Your task to perform on an android device: turn off data saver in the chrome app Image 0: 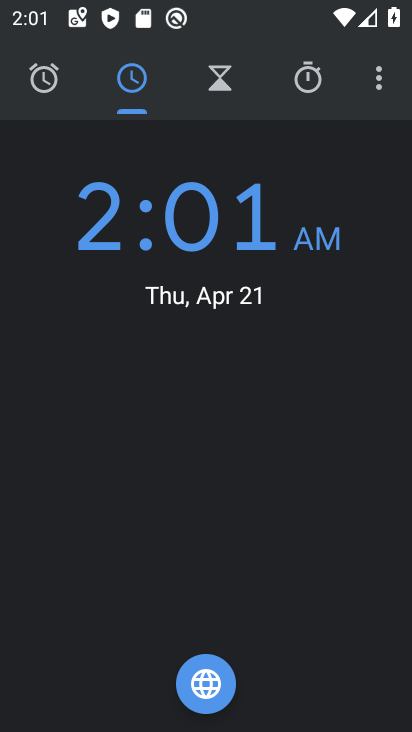
Step 0: press home button
Your task to perform on an android device: turn off data saver in the chrome app Image 1: 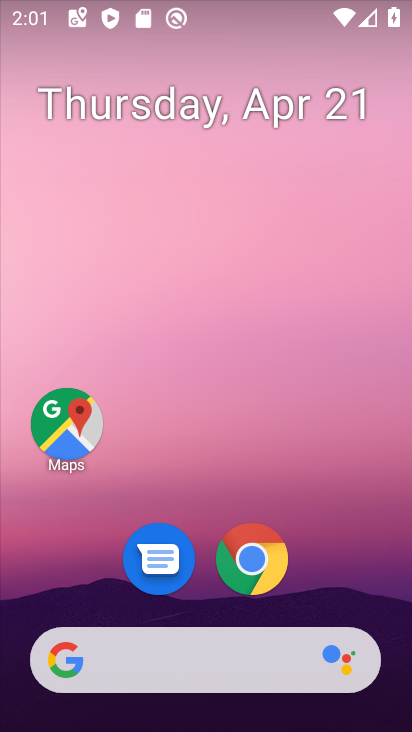
Step 1: drag from (206, 600) to (181, 211)
Your task to perform on an android device: turn off data saver in the chrome app Image 2: 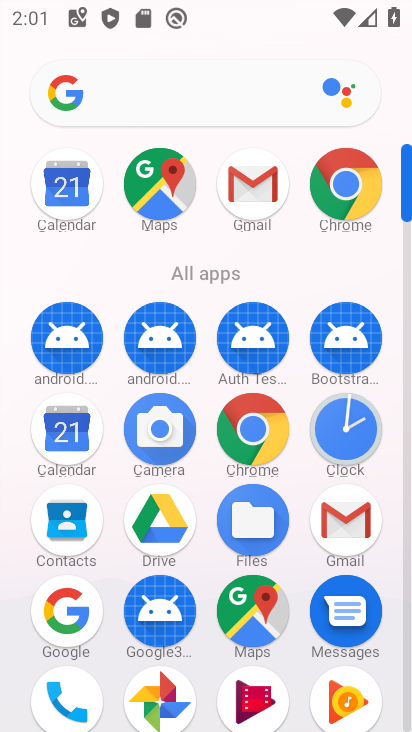
Step 2: click (352, 179)
Your task to perform on an android device: turn off data saver in the chrome app Image 3: 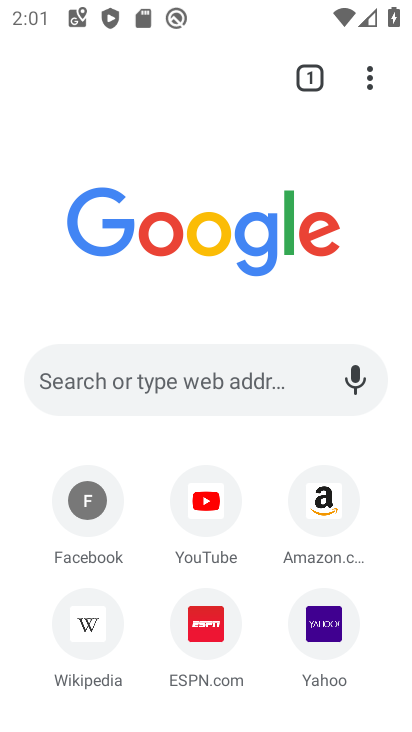
Step 3: click (366, 83)
Your task to perform on an android device: turn off data saver in the chrome app Image 4: 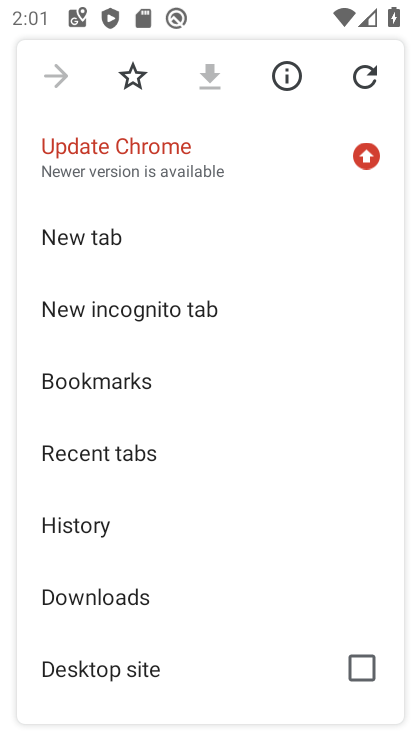
Step 4: drag from (210, 603) to (186, 240)
Your task to perform on an android device: turn off data saver in the chrome app Image 5: 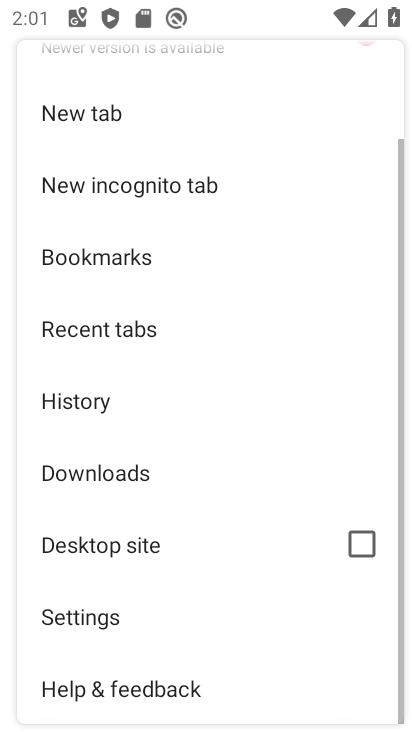
Step 5: click (140, 622)
Your task to perform on an android device: turn off data saver in the chrome app Image 6: 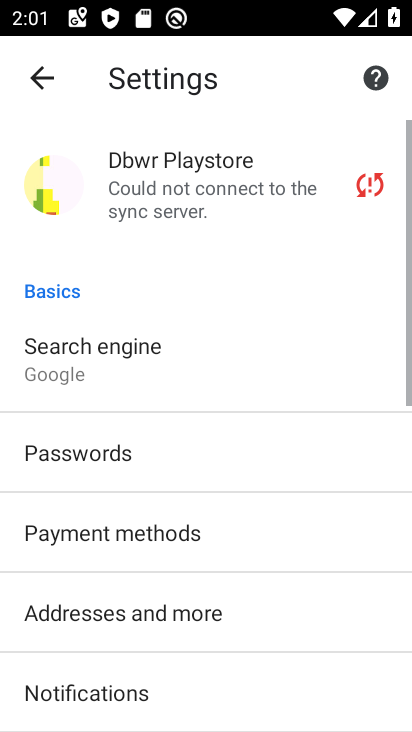
Step 6: drag from (159, 595) to (158, 288)
Your task to perform on an android device: turn off data saver in the chrome app Image 7: 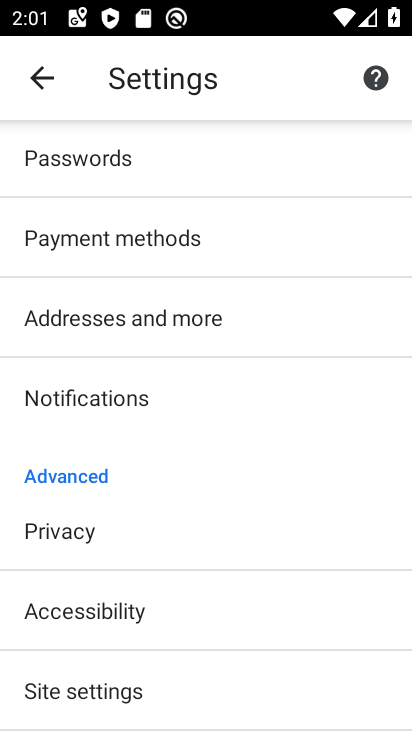
Step 7: drag from (138, 677) to (123, 342)
Your task to perform on an android device: turn off data saver in the chrome app Image 8: 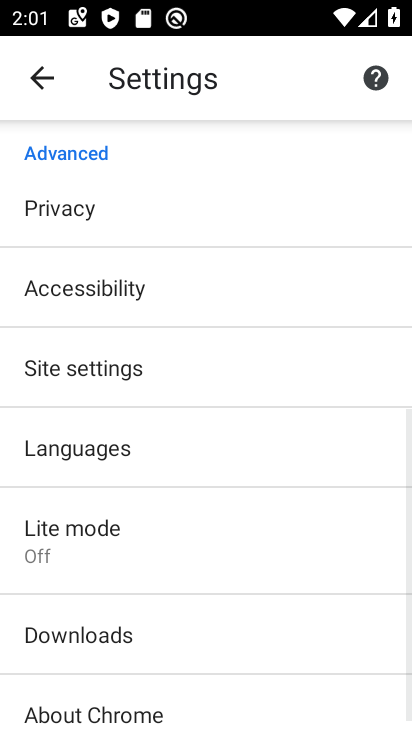
Step 8: click (95, 589)
Your task to perform on an android device: turn off data saver in the chrome app Image 9: 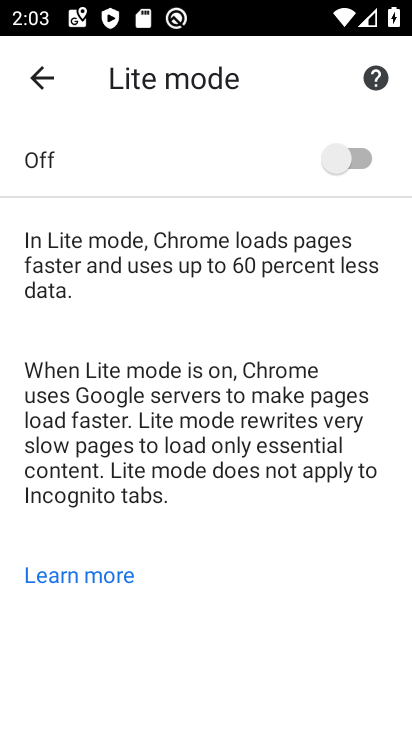
Step 9: task complete